Your task to perform on an android device: Open settings Image 0: 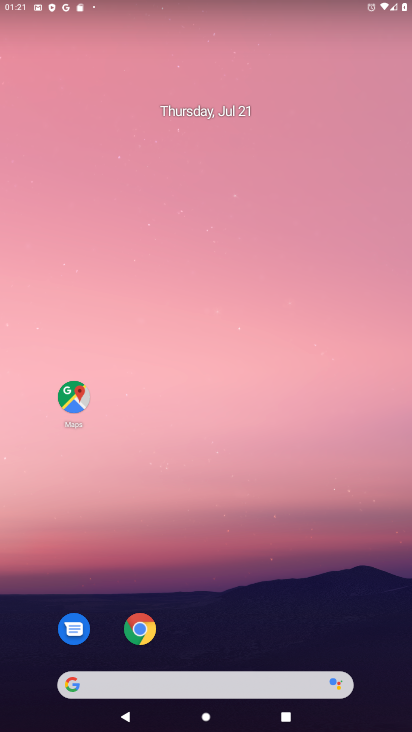
Step 0: drag from (205, 612) to (222, 89)
Your task to perform on an android device: Open settings Image 1: 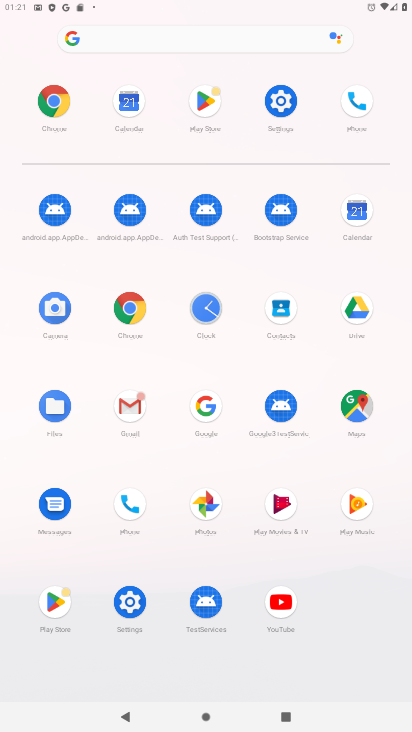
Step 1: click (279, 99)
Your task to perform on an android device: Open settings Image 2: 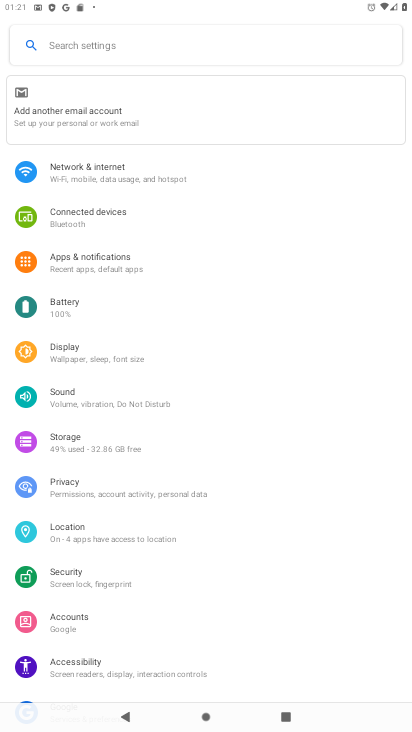
Step 2: task complete